Your task to perform on an android device: see tabs open on other devices in the chrome app Image 0: 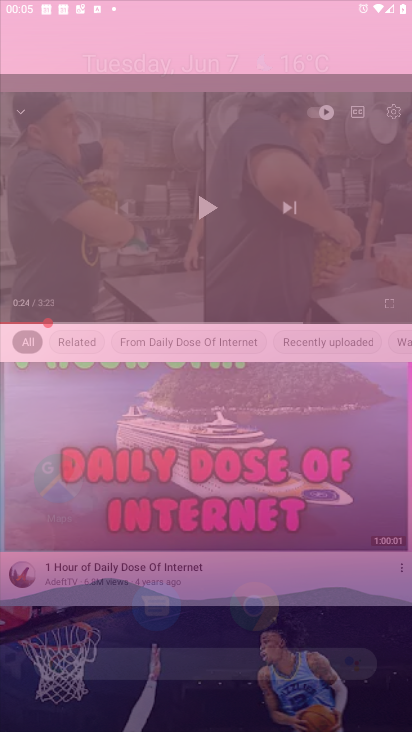
Step 0: press home button
Your task to perform on an android device: see tabs open on other devices in the chrome app Image 1: 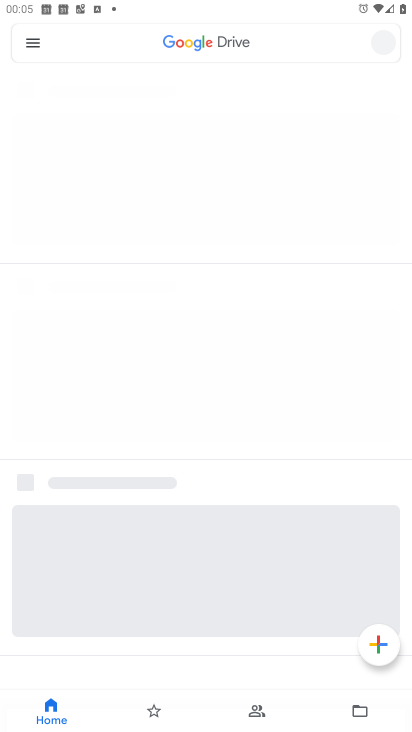
Step 1: drag from (295, 703) to (280, 110)
Your task to perform on an android device: see tabs open on other devices in the chrome app Image 2: 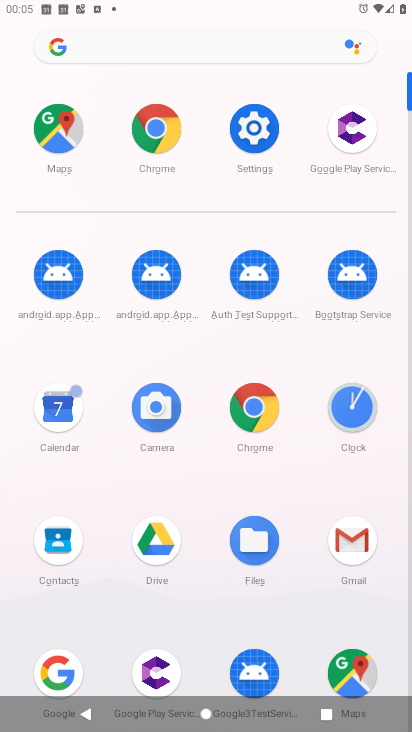
Step 2: press home button
Your task to perform on an android device: see tabs open on other devices in the chrome app Image 3: 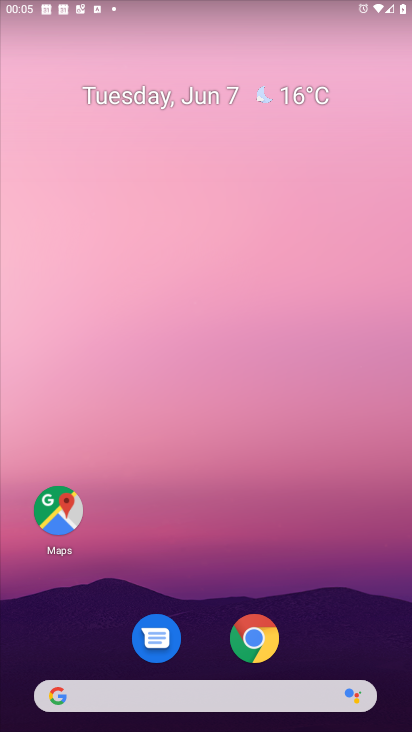
Step 3: drag from (275, 711) to (252, 102)
Your task to perform on an android device: see tabs open on other devices in the chrome app Image 4: 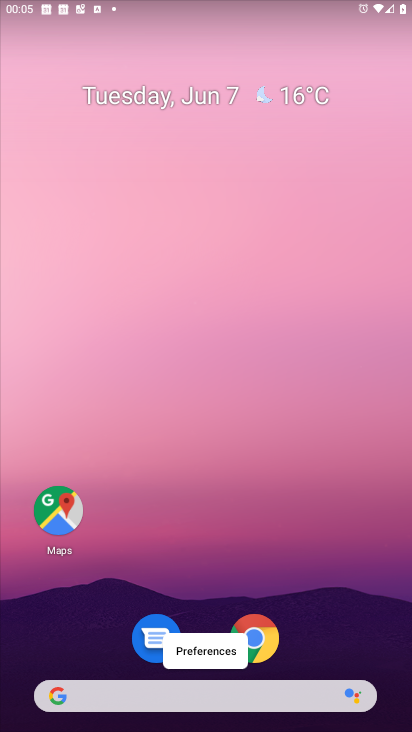
Step 4: drag from (80, 709) to (273, 203)
Your task to perform on an android device: see tabs open on other devices in the chrome app Image 5: 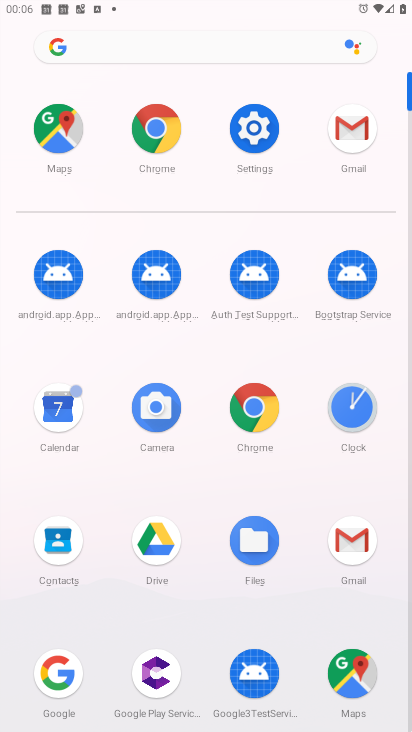
Step 5: click (272, 410)
Your task to perform on an android device: see tabs open on other devices in the chrome app Image 6: 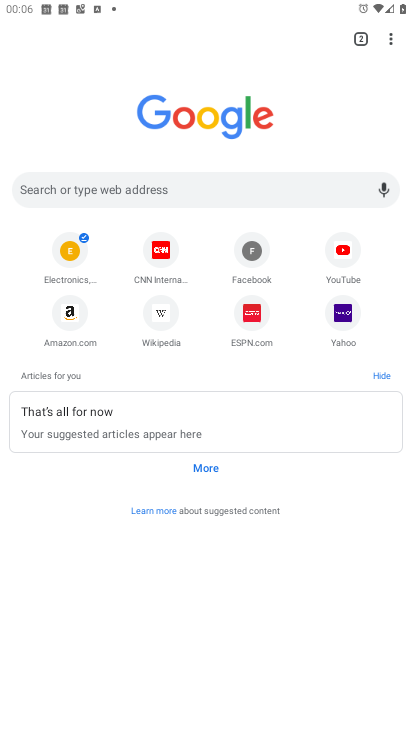
Step 6: click (357, 42)
Your task to perform on an android device: see tabs open on other devices in the chrome app Image 7: 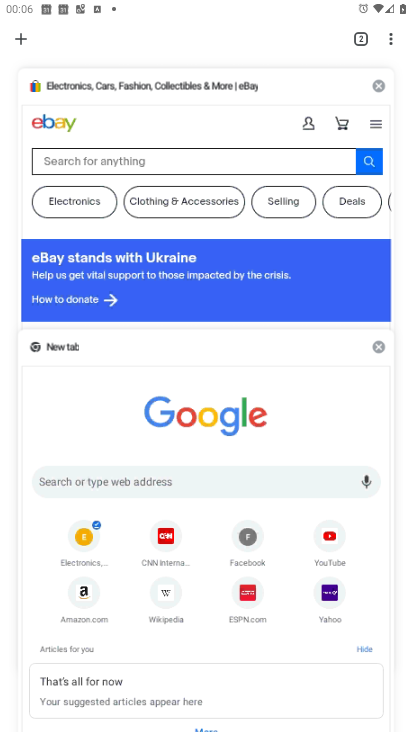
Step 7: click (23, 43)
Your task to perform on an android device: see tabs open on other devices in the chrome app Image 8: 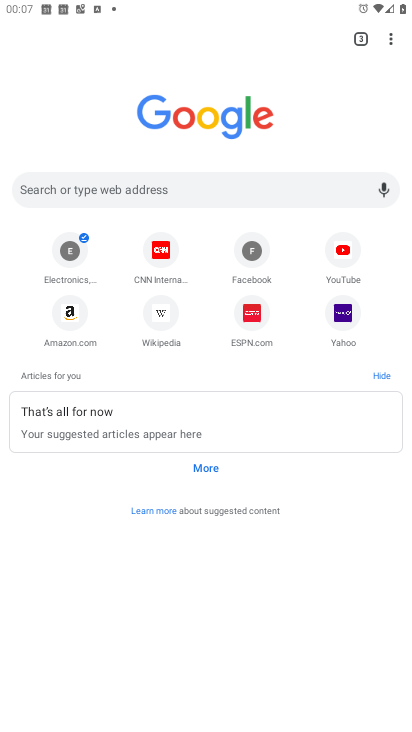
Step 8: task complete